Your task to perform on an android device: uninstall "Etsy: Buy & Sell Unique Items" Image 0: 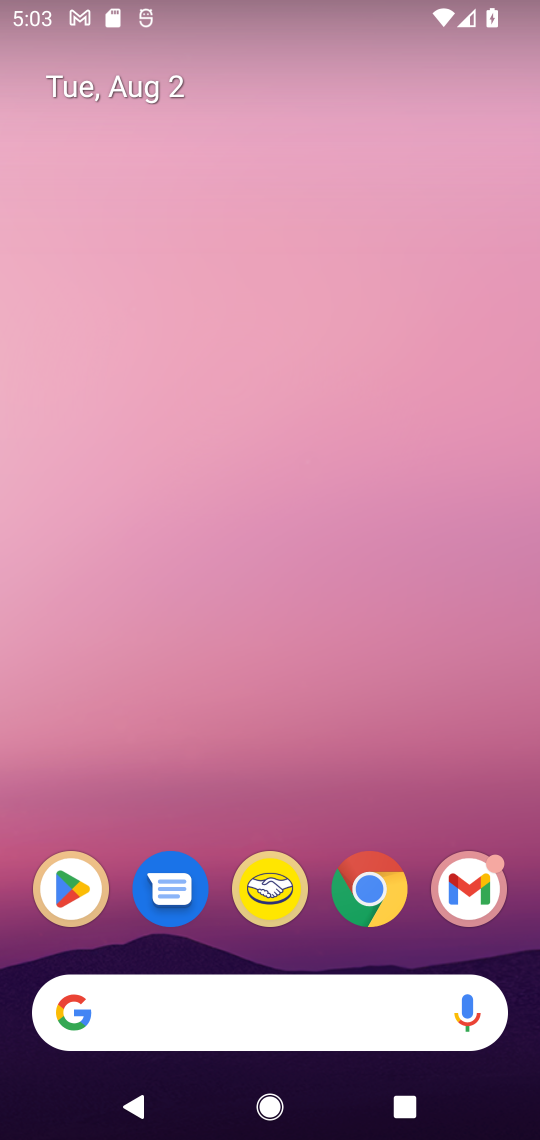
Step 0: drag from (425, 767) to (365, 57)
Your task to perform on an android device: uninstall "Etsy: Buy & Sell Unique Items" Image 1: 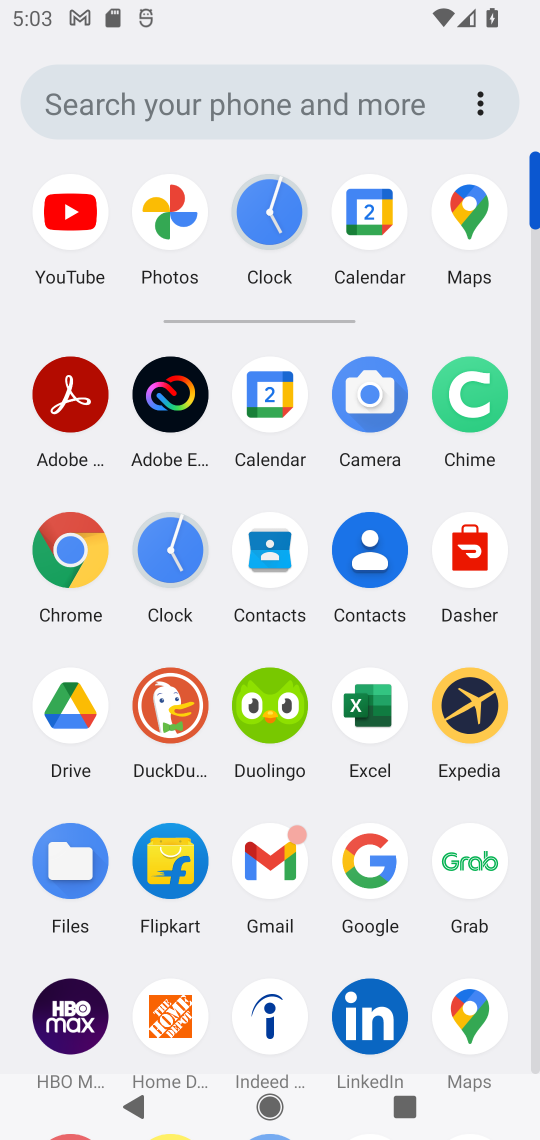
Step 1: drag from (502, 949) to (526, 339)
Your task to perform on an android device: uninstall "Etsy: Buy & Sell Unique Items" Image 2: 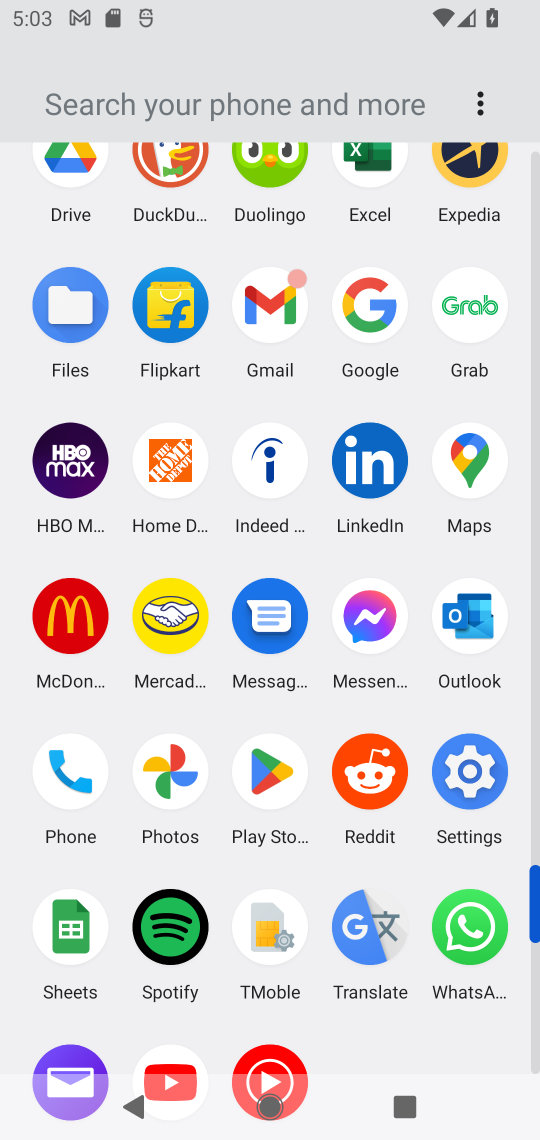
Step 2: click (264, 783)
Your task to perform on an android device: uninstall "Etsy: Buy & Sell Unique Items" Image 3: 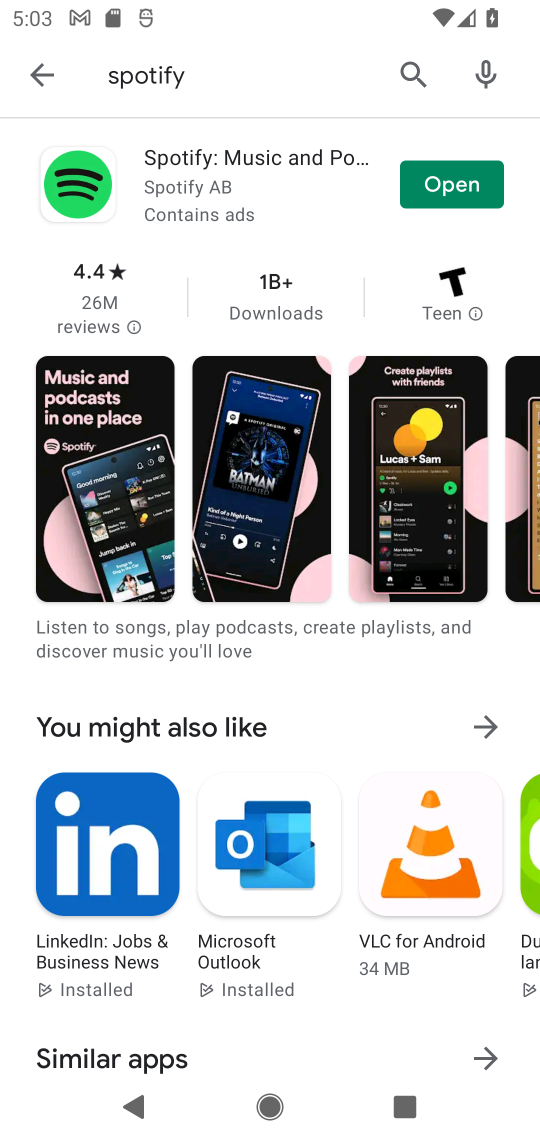
Step 3: click (412, 71)
Your task to perform on an android device: uninstall "Etsy: Buy & Sell Unique Items" Image 4: 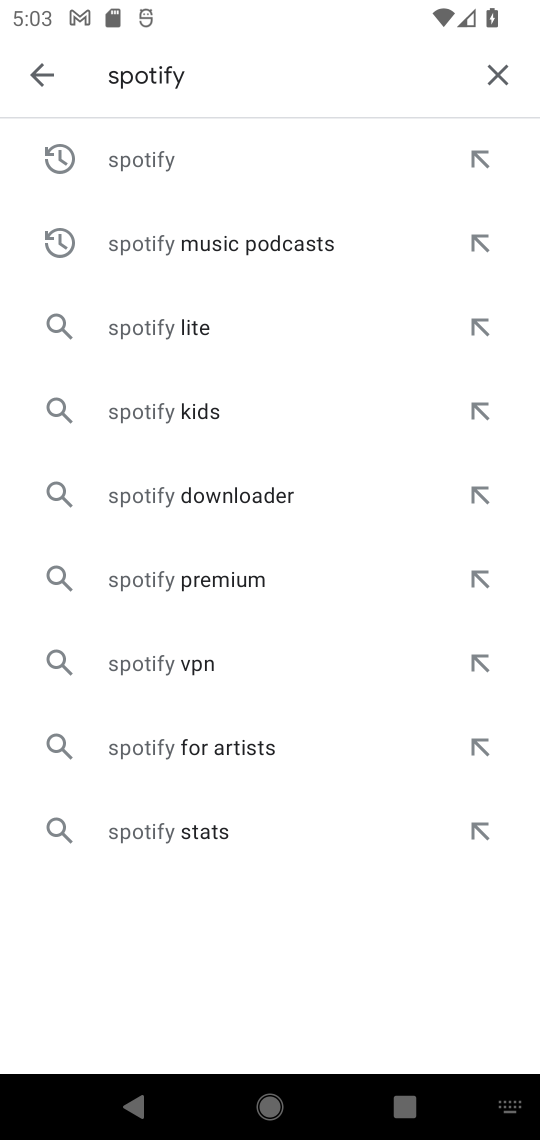
Step 4: click (484, 73)
Your task to perform on an android device: uninstall "Etsy: Buy & Sell Unique Items" Image 5: 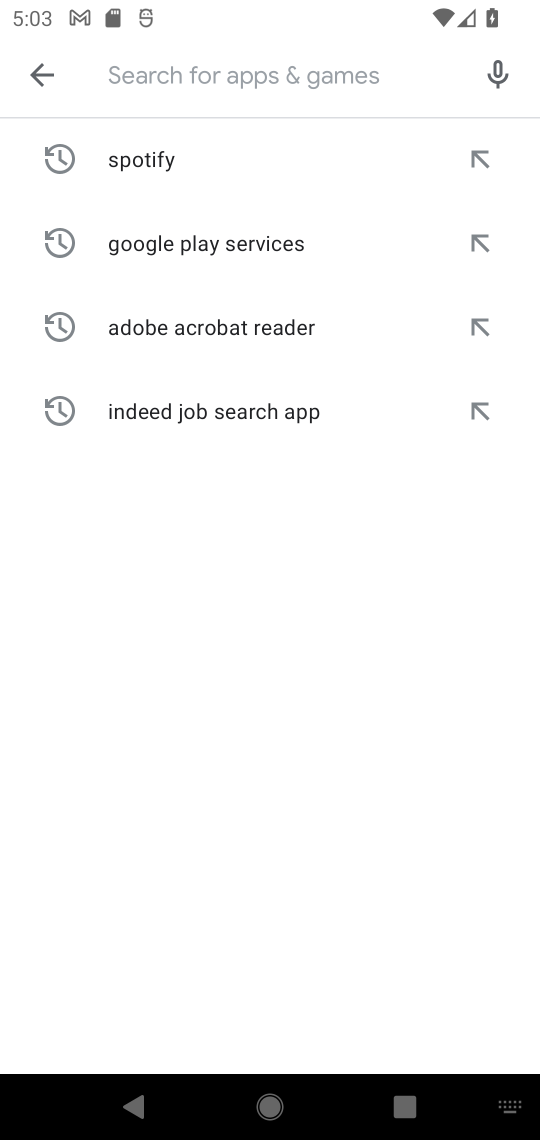
Step 5: type "Etsy: Buy & Sell Unique Items"
Your task to perform on an android device: uninstall "Etsy: Buy & Sell Unique Items" Image 6: 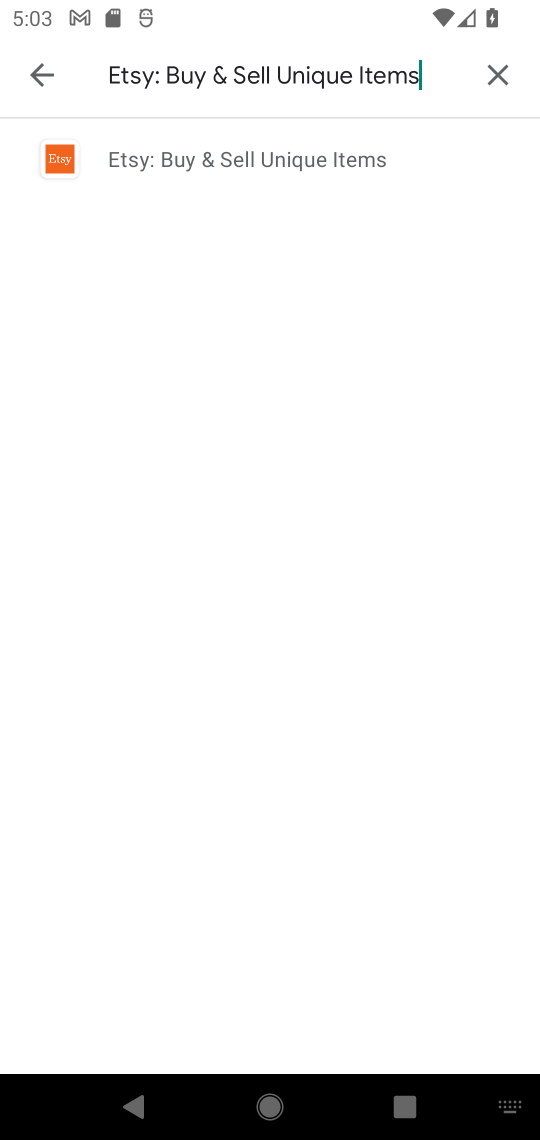
Step 6: click (340, 153)
Your task to perform on an android device: uninstall "Etsy: Buy & Sell Unique Items" Image 7: 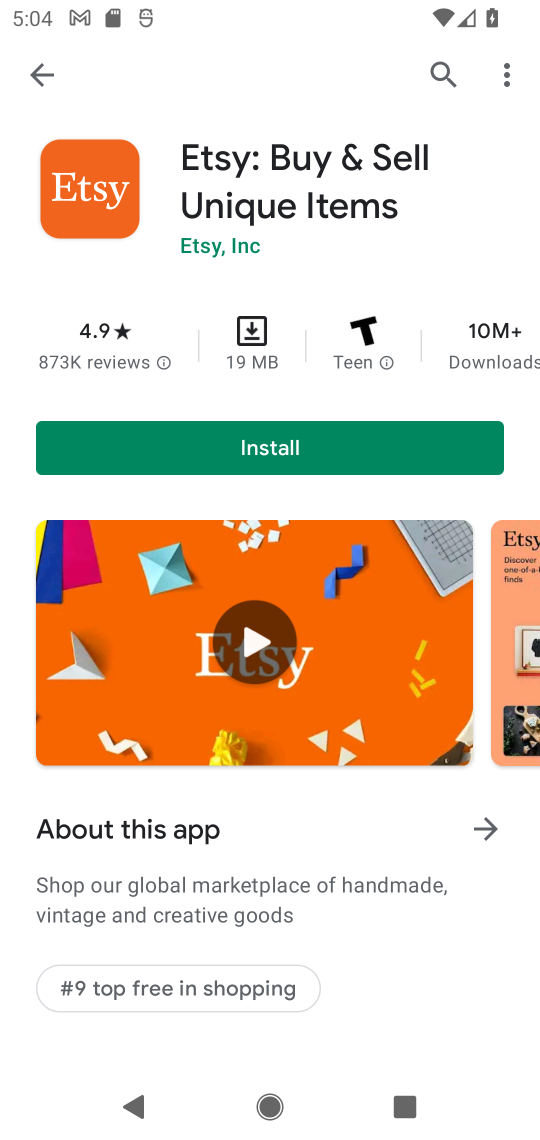
Step 7: task complete